Your task to perform on an android device: Open Chrome and go to the settings page Image 0: 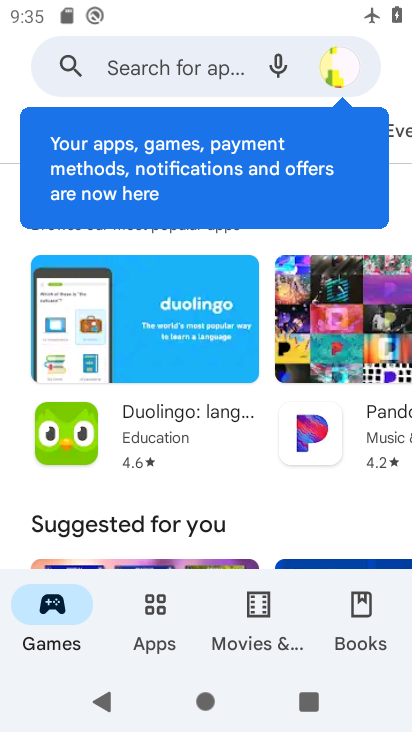
Step 0: press home button
Your task to perform on an android device: Open Chrome and go to the settings page Image 1: 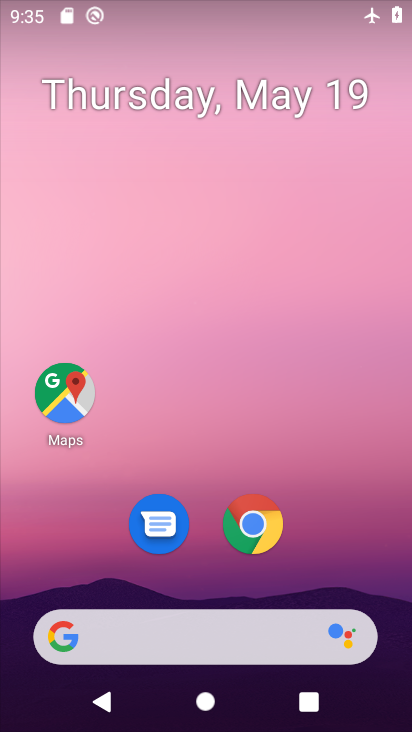
Step 1: click (259, 530)
Your task to perform on an android device: Open Chrome and go to the settings page Image 2: 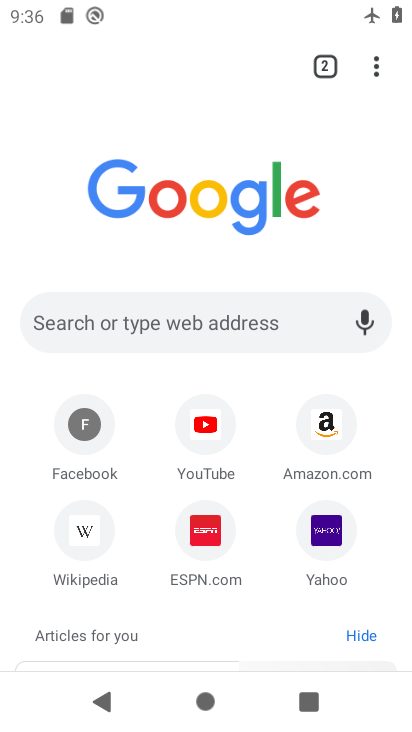
Step 2: click (376, 67)
Your task to perform on an android device: Open Chrome and go to the settings page Image 3: 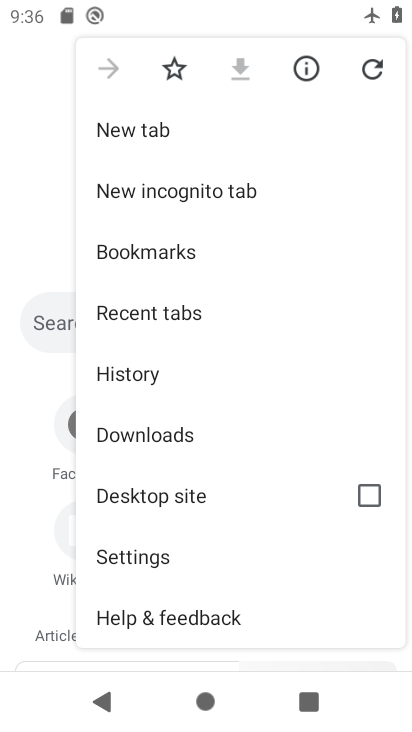
Step 3: click (179, 554)
Your task to perform on an android device: Open Chrome and go to the settings page Image 4: 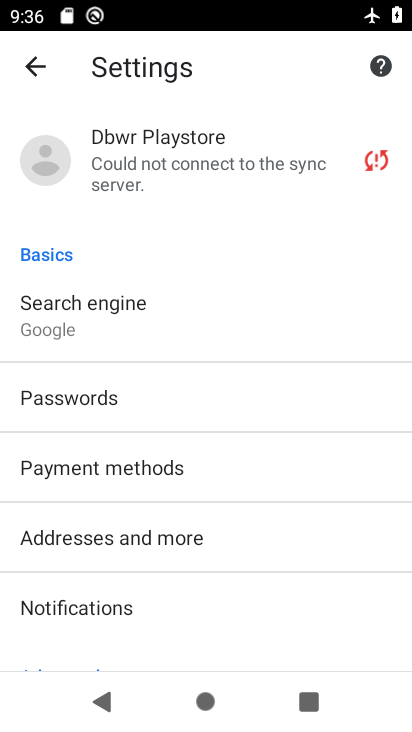
Step 4: task complete